Your task to perform on an android device: Do I have any events today? Image 0: 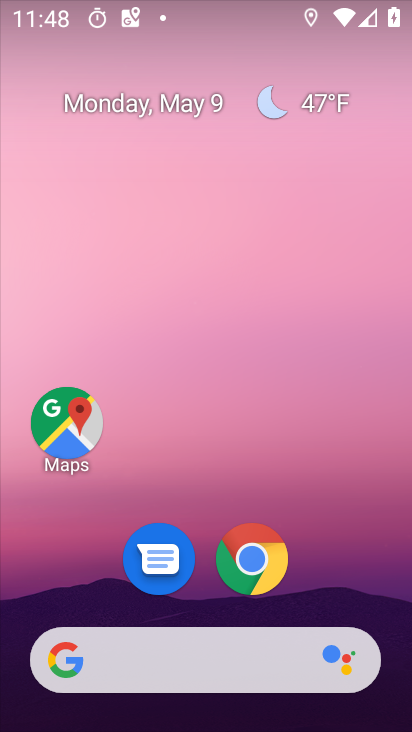
Step 0: drag from (321, 594) to (355, 58)
Your task to perform on an android device: Do I have any events today? Image 1: 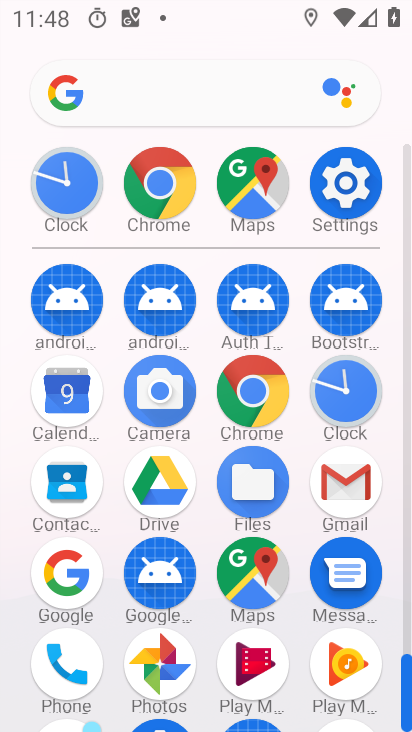
Step 1: click (77, 384)
Your task to perform on an android device: Do I have any events today? Image 2: 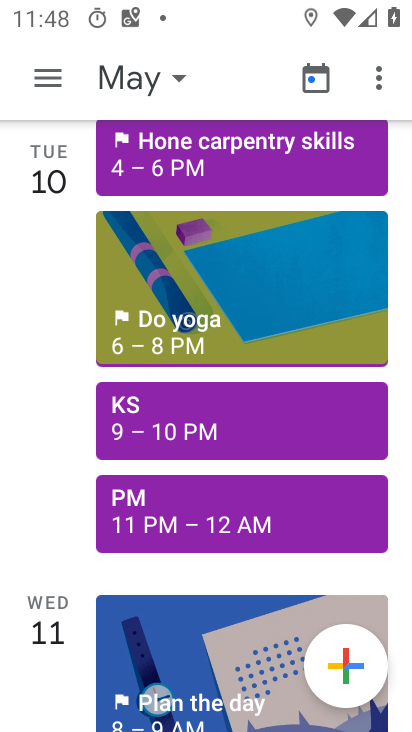
Step 2: task complete